Your task to perform on an android device: find snoozed emails in the gmail app Image 0: 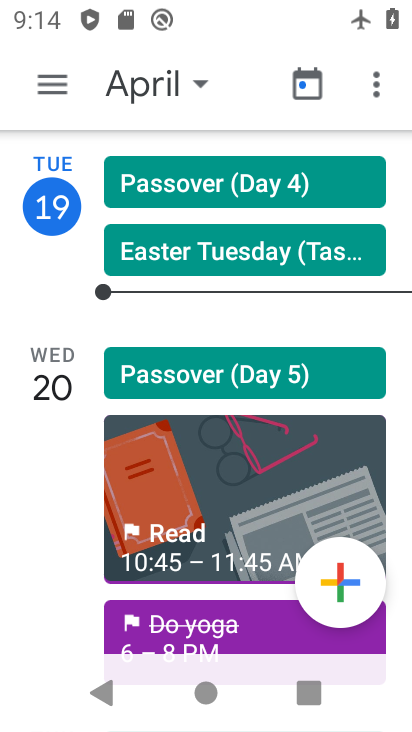
Step 0: click (51, 75)
Your task to perform on an android device: find snoozed emails in the gmail app Image 1: 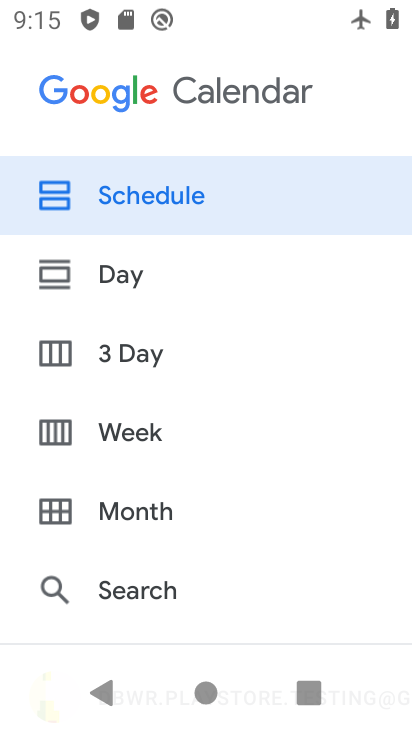
Step 1: click (111, 696)
Your task to perform on an android device: find snoozed emails in the gmail app Image 2: 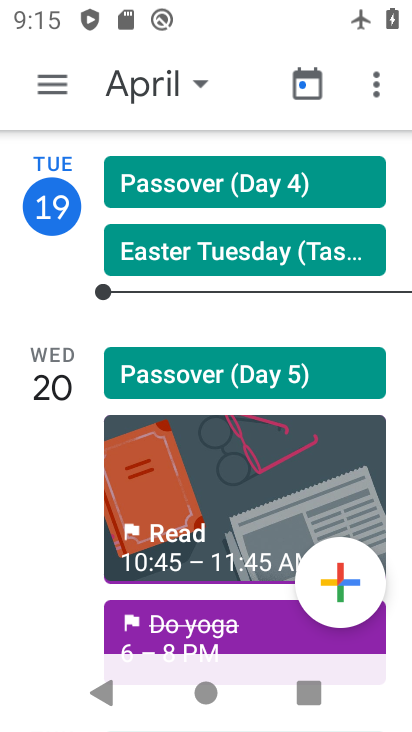
Step 2: press back button
Your task to perform on an android device: find snoozed emails in the gmail app Image 3: 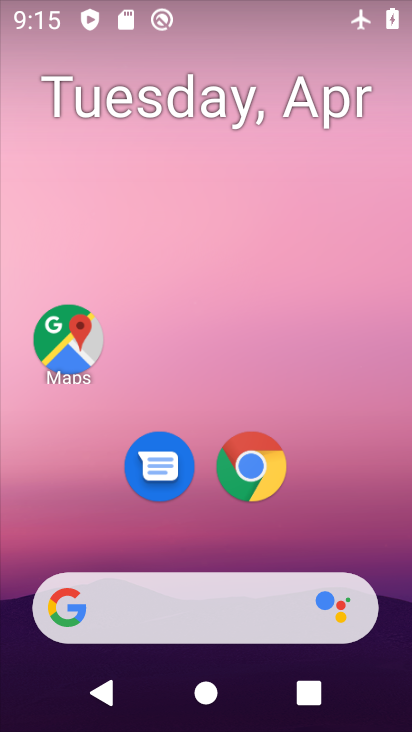
Step 3: drag from (348, 527) to (195, 17)
Your task to perform on an android device: find snoozed emails in the gmail app Image 4: 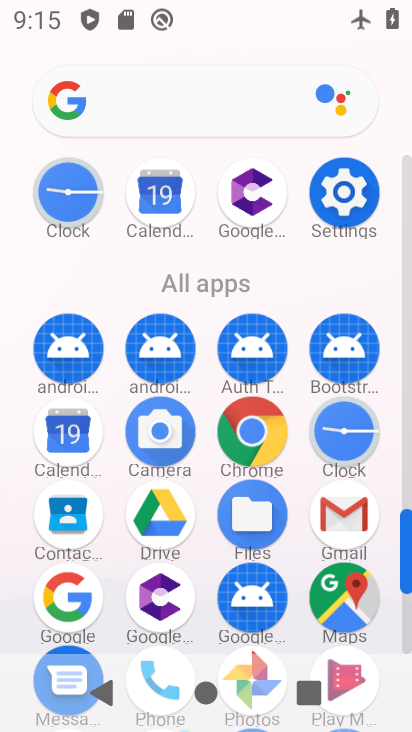
Step 4: click (335, 506)
Your task to perform on an android device: find snoozed emails in the gmail app Image 5: 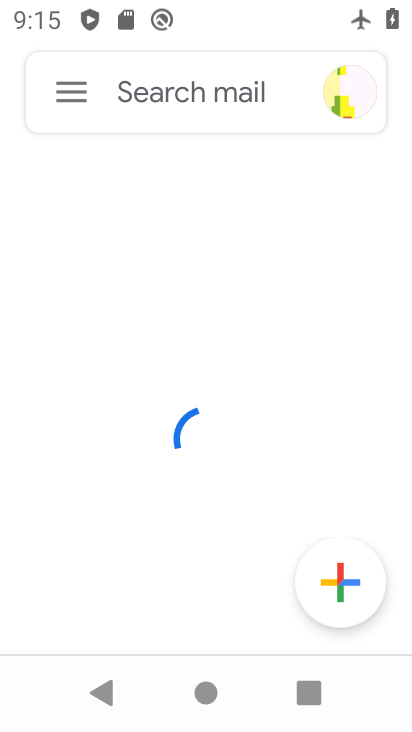
Step 5: click (88, 100)
Your task to perform on an android device: find snoozed emails in the gmail app Image 6: 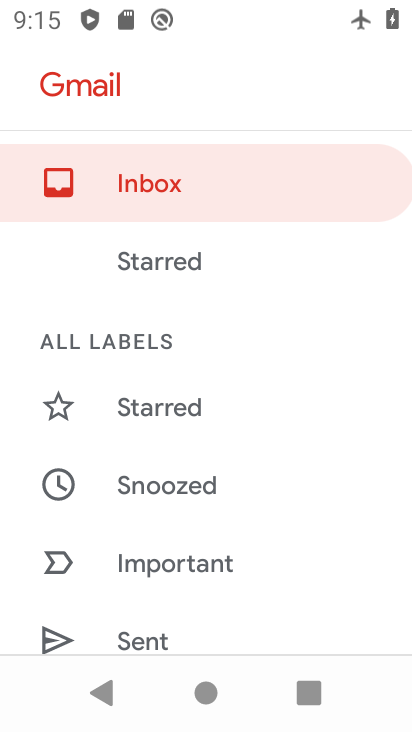
Step 6: click (198, 403)
Your task to perform on an android device: find snoozed emails in the gmail app Image 7: 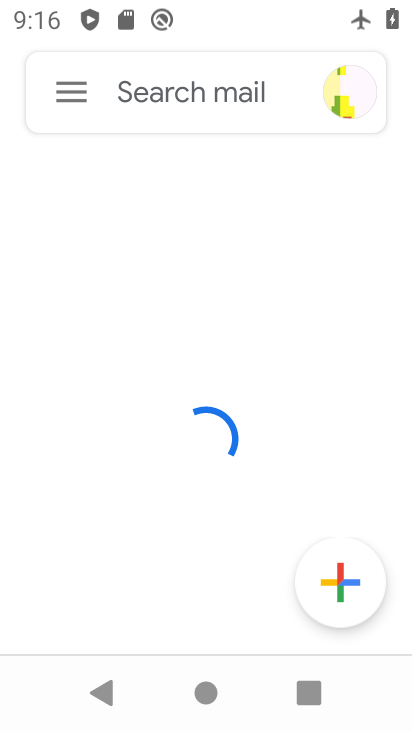
Step 7: click (79, 92)
Your task to perform on an android device: find snoozed emails in the gmail app Image 8: 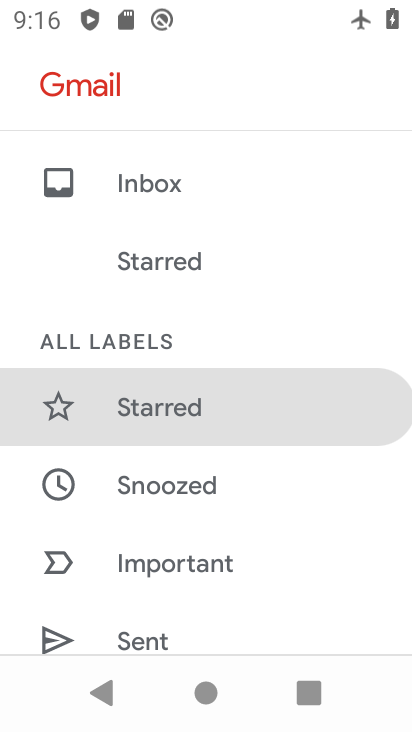
Step 8: click (171, 500)
Your task to perform on an android device: find snoozed emails in the gmail app Image 9: 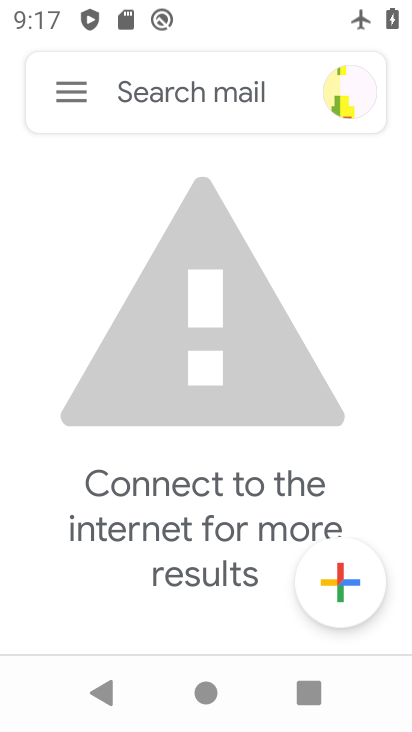
Step 9: press back button
Your task to perform on an android device: find snoozed emails in the gmail app Image 10: 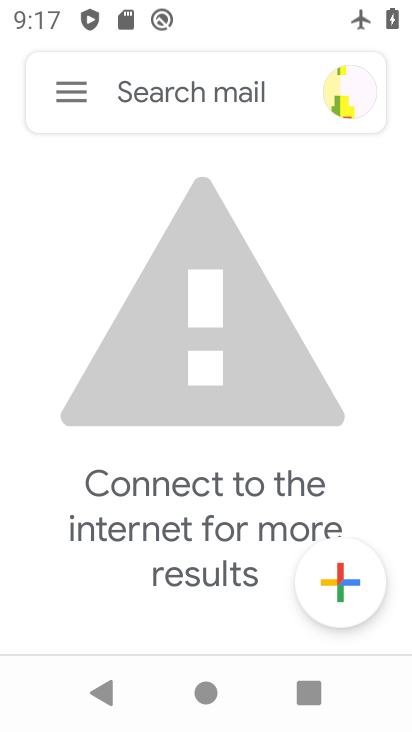
Step 10: press back button
Your task to perform on an android device: find snoozed emails in the gmail app Image 11: 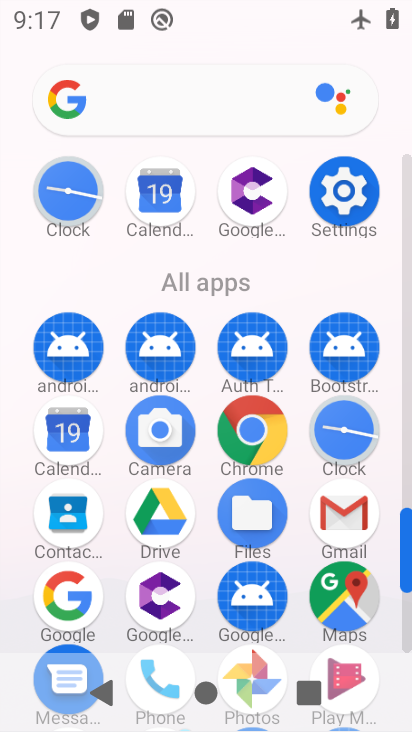
Step 11: press back button
Your task to perform on an android device: find snoozed emails in the gmail app Image 12: 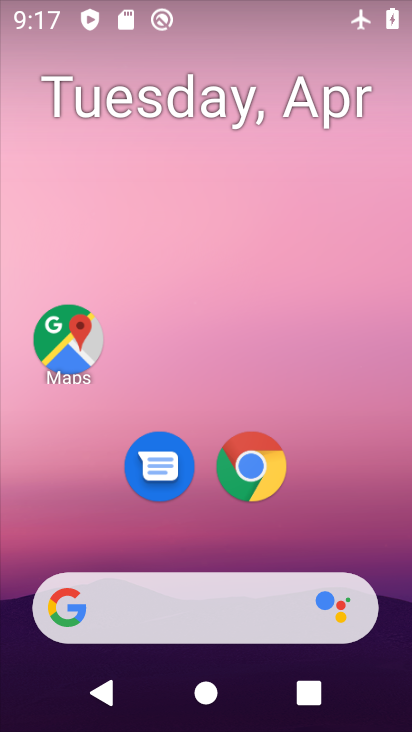
Step 12: drag from (325, 523) to (218, 55)
Your task to perform on an android device: find snoozed emails in the gmail app Image 13: 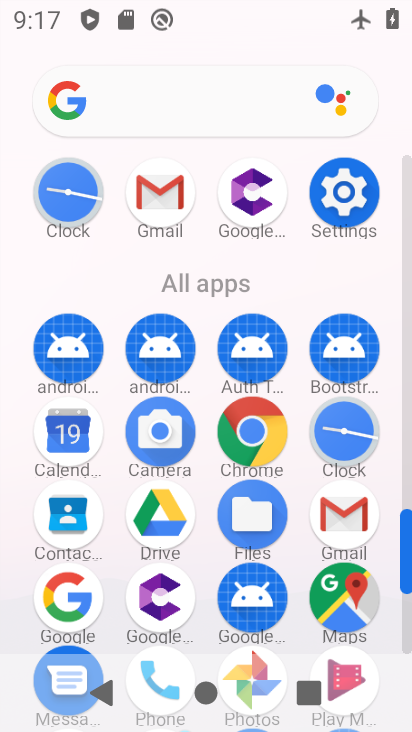
Step 13: click (343, 496)
Your task to perform on an android device: find snoozed emails in the gmail app Image 14: 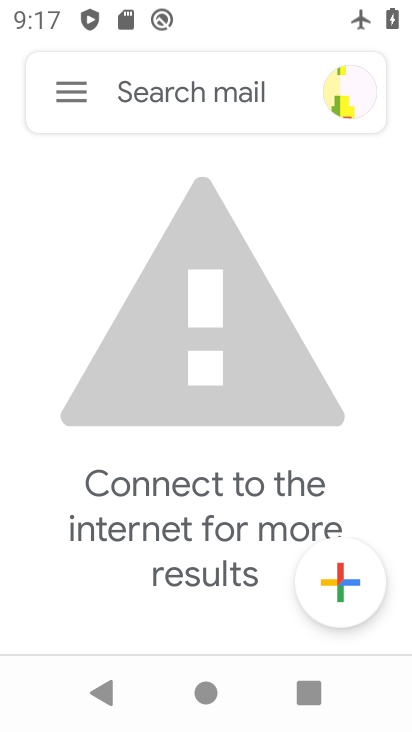
Step 14: click (69, 108)
Your task to perform on an android device: find snoozed emails in the gmail app Image 15: 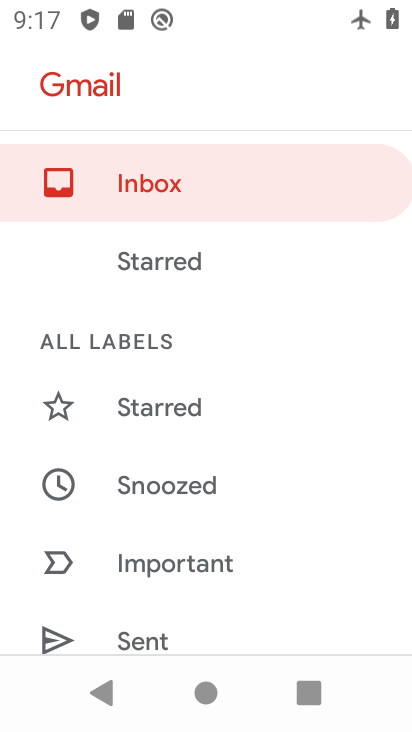
Step 15: drag from (216, 510) to (193, 320)
Your task to perform on an android device: find snoozed emails in the gmail app Image 16: 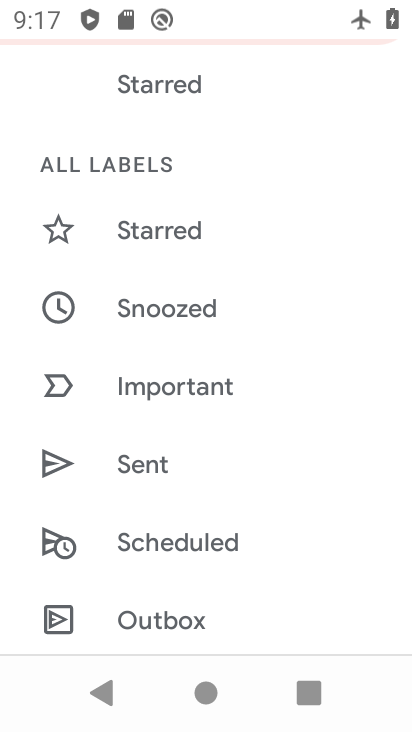
Step 16: drag from (246, 551) to (238, 468)
Your task to perform on an android device: find snoozed emails in the gmail app Image 17: 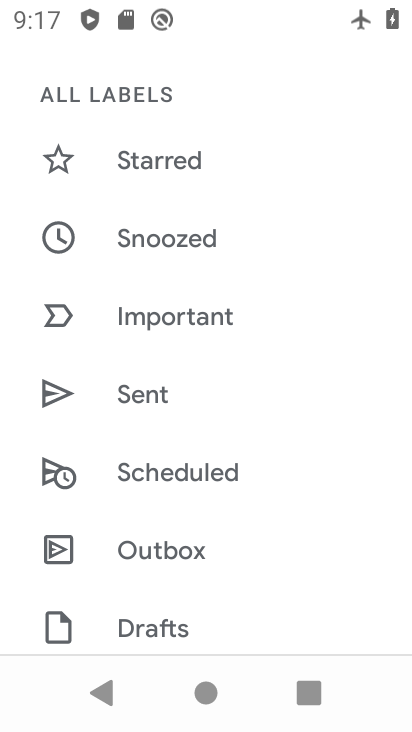
Step 17: drag from (256, 593) to (253, 417)
Your task to perform on an android device: find snoozed emails in the gmail app Image 18: 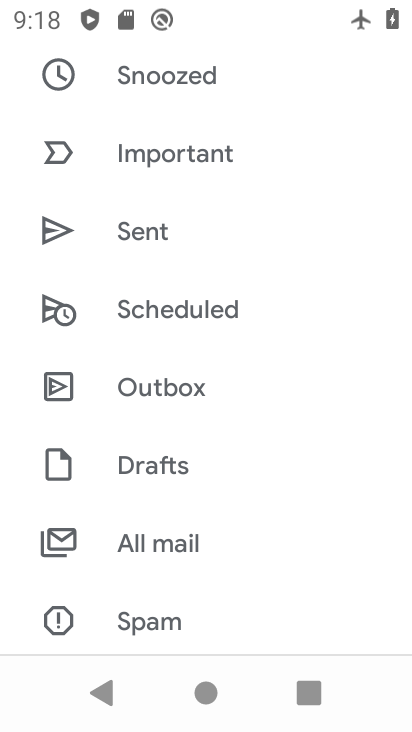
Step 18: drag from (237, 513) to (231, 333)
Your task to perform on an android device: find snoozed emails in the gmail app Image 19: 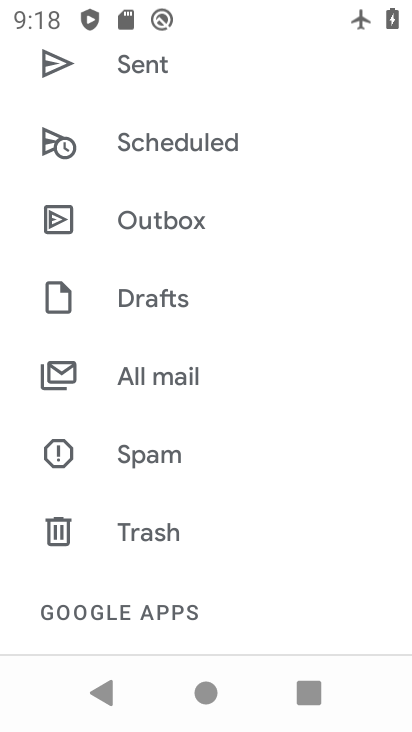
Step 19: drag from (251, 305) to (262, 635)
Your task to perform on an android device: find snoozed emails in the gmail app Image 20: 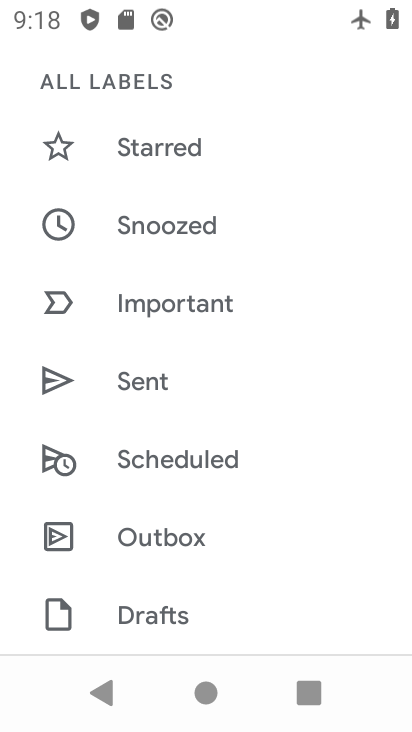
Step 20: click (241, 211)
Your task to perform on an android device: find snoozed emails in the gmail app Image 21: 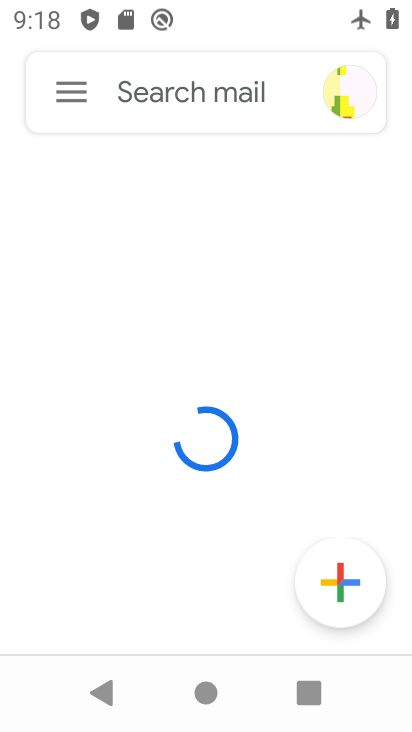
Step 21: task complete